Your task to perform on an android device: open chrome privacy settings Image 0: 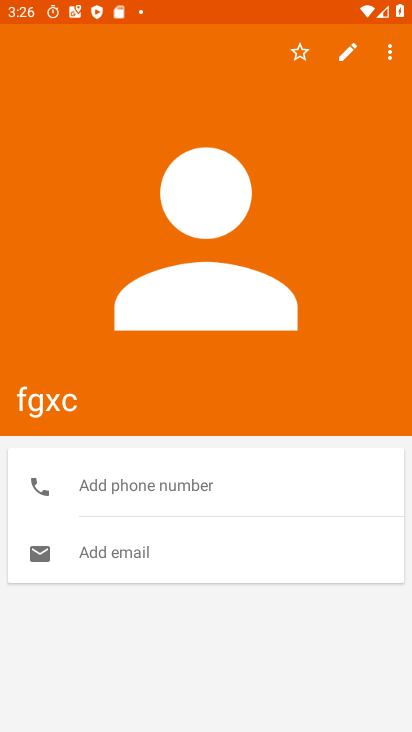
Step 0: press home button
Your task to perform on an android device: open chrome privacy settings Image 1: 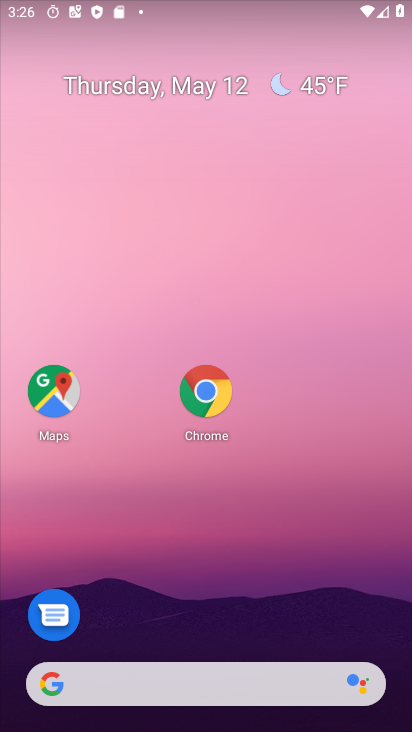
Step 1: click (202, 393)
Your task to perform on an android device: open chrome privacy settings Image 2: 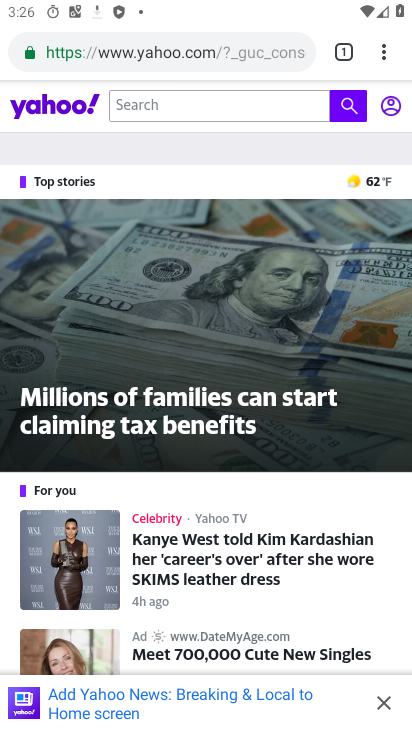
Step 2: click (377, 55)
Your task to perform on an android device: open chrome privacy settings Image 3: 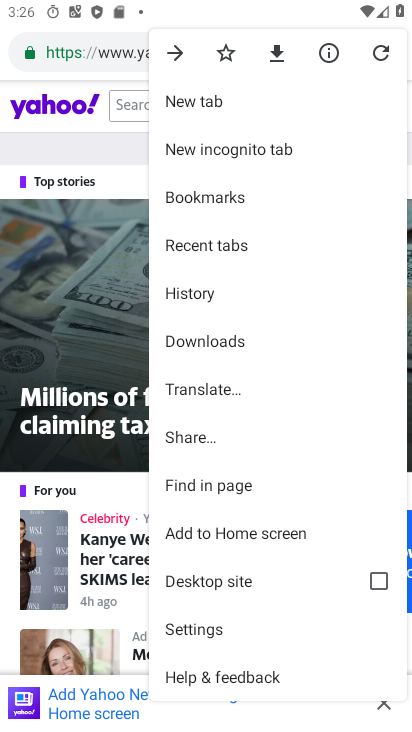
Step 3: click (226, 623)
Your task to perform on an android device: open chrome privacy settings Image 4: 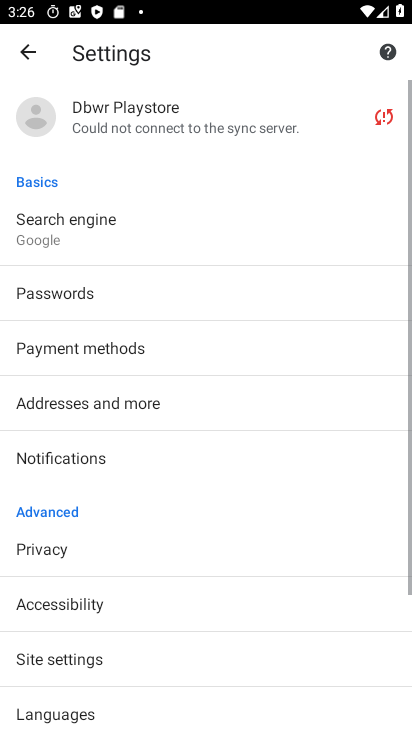
Step 4: click (83, 548)
Your task to perform on an android device: open chrome privacy settings Image 5: 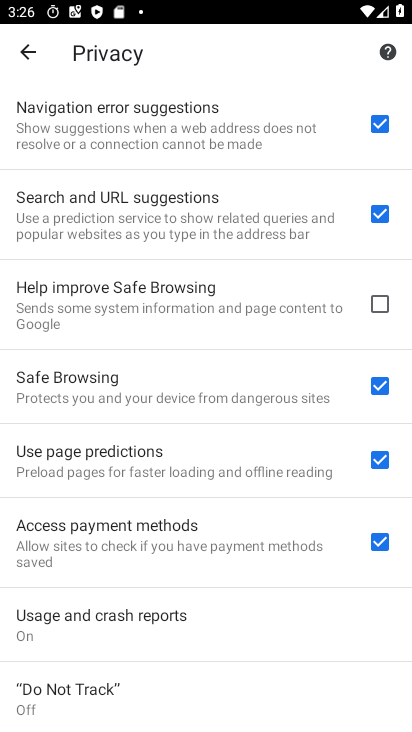
Step 5: task complete